Your task to perform on an android device: Open the calendar and show me this week's events? Image 0: 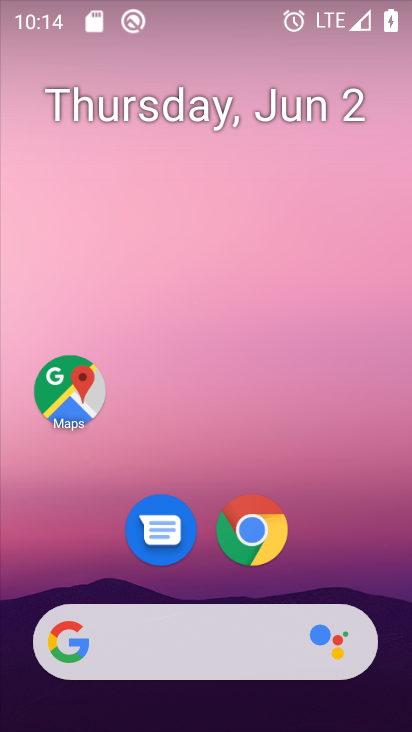
Step 0: drag from (149, 598) to (213, 281)
Your task to perform on an android device: Open the calendar and show me this week's events? Image 1: 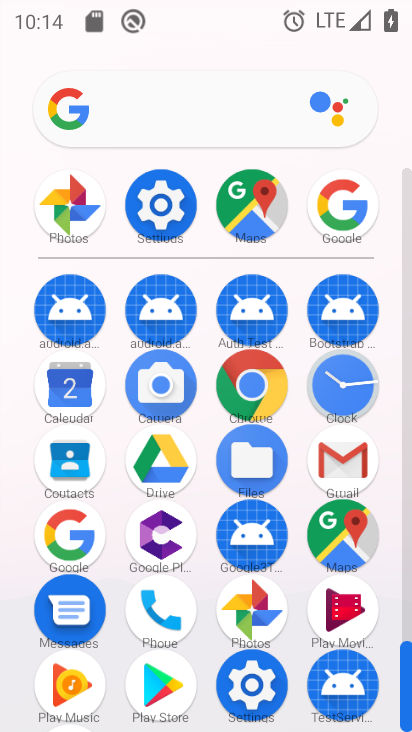
Step 1: click (64, 396)
Your task to perform on an android device: Open the calendar and show me this week's events? Image 2: 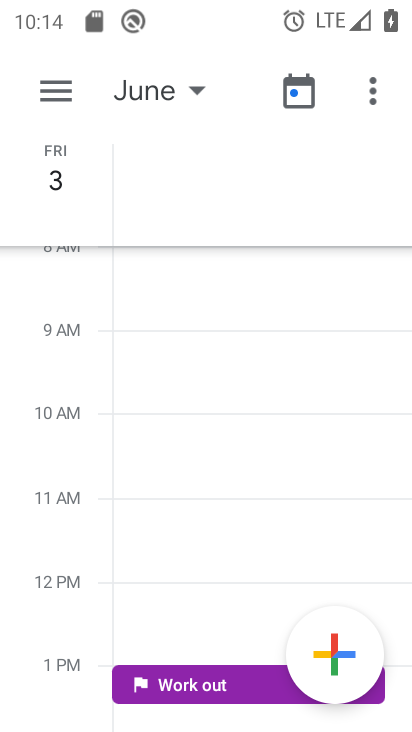
Step 2: click (175, 89)
Your task to perform on an android device: Open the calendar and show me this week's events? Image 3: 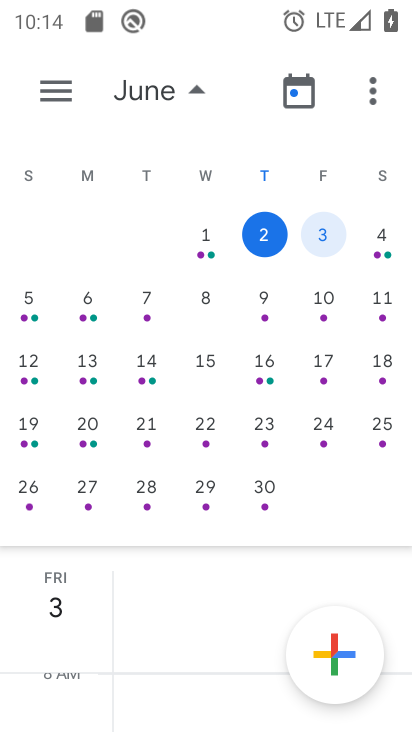
Step 3: drag from (187, 621) to (186, 262)
Your task to perform on an android device: Open the calendar and show me this week's events? Image 4: 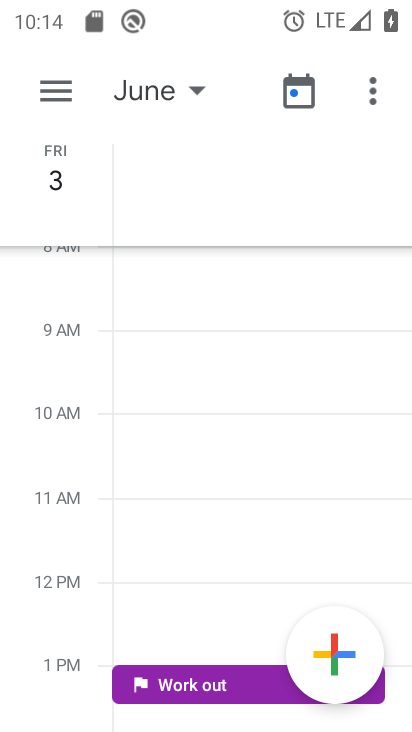
Step 4: drag from (169, 608) to (187, 304)
Your task to perform on an android device: Open the calendar and show me this week's events? Image 5: 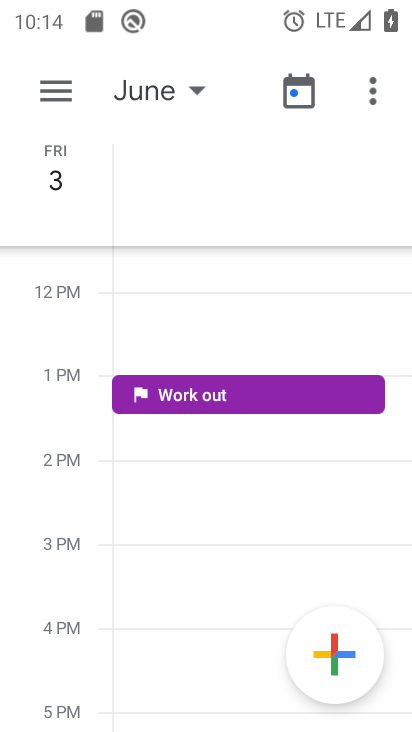
Step 5: drag from (154, 633) to (167, 310)
Your task to perform on an android device: Open the calendar and show me this week's events? Image 6: 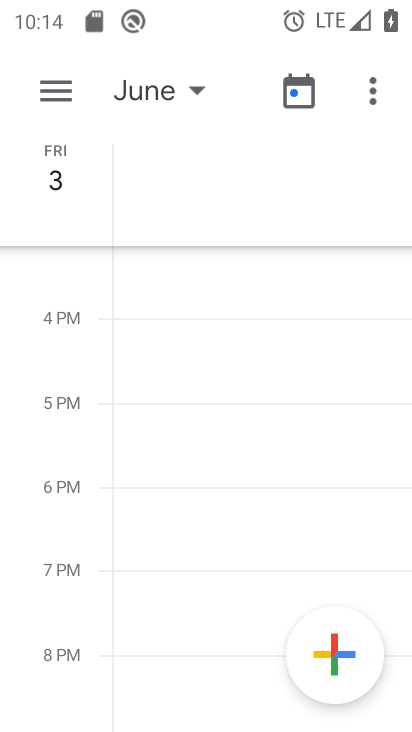
Step 6: click (40, 91)
Your task to perform on an android device: Open the calendar and show me this week's events? Image 7: 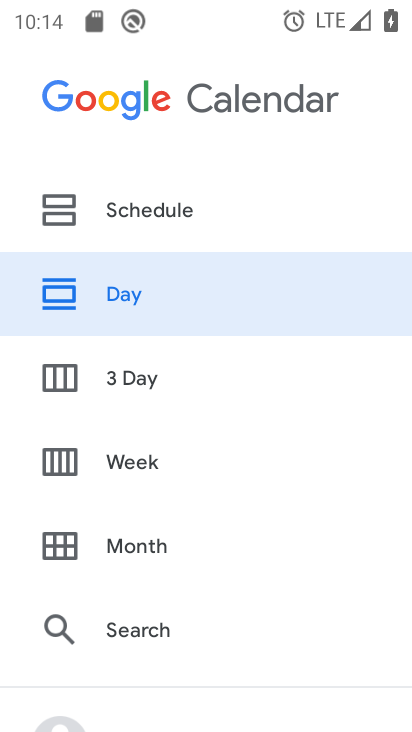
Step 7: click (109, 206)
Your task to perform on an android device: Open the calendar and show me this week's events? Image 8: 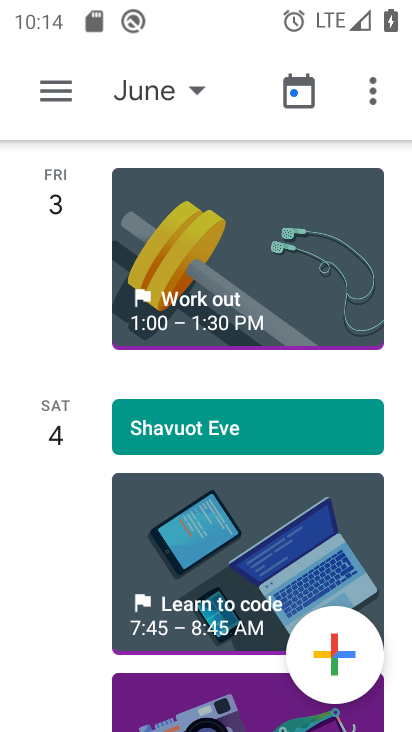
Step 8: task complete